Your task to perform on an android device: toggle translation in the chrome app Image 0: 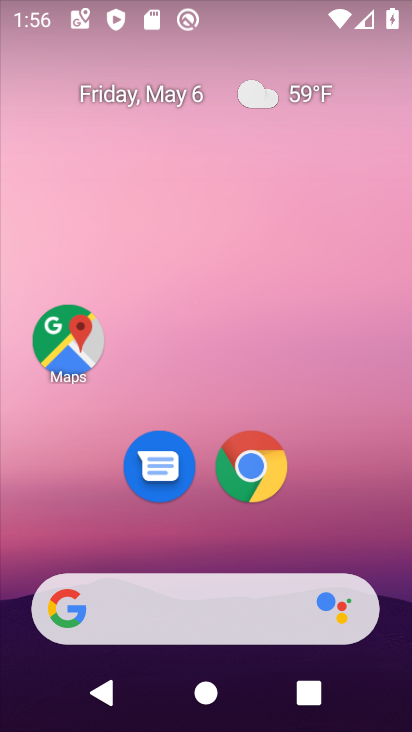
Step 0: drag from (200, 539) to (236, 45)
Your task to perform on an android device: toggle translation in the chrome app Image 1: 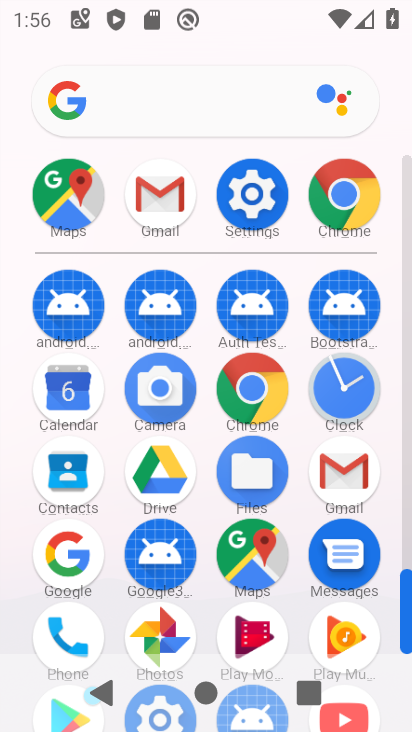
Step 1: click (248, 380)
Your task to perform on an android device: toggle translation in the chrome app Image 2: 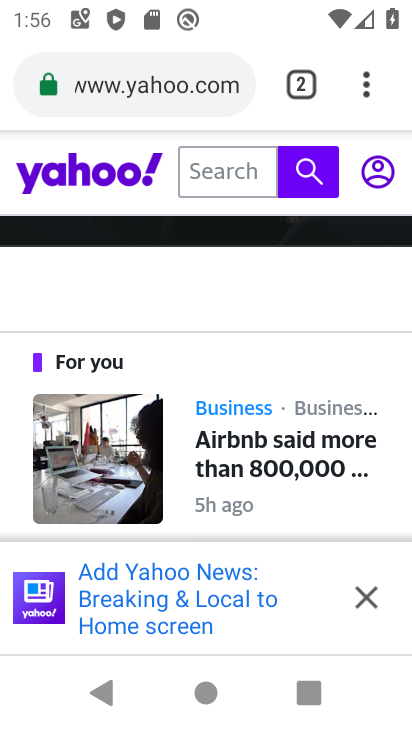
Step 2: click (366, 86)
Your task to perform on an android device: toggle translation in the chrome app Image 3: 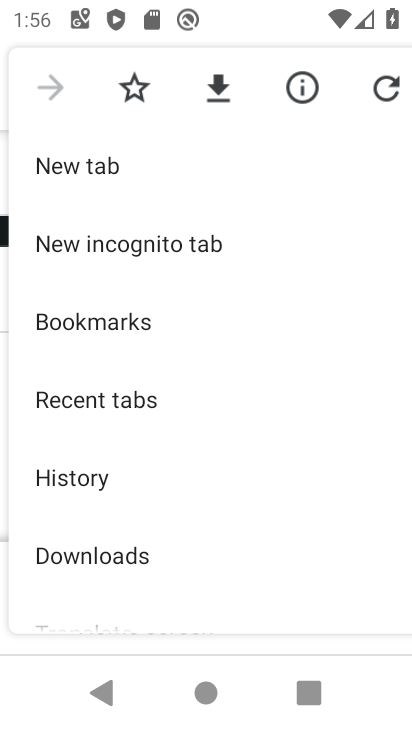
Step 3: drag from (181, 596) to (204, 123)
Your task to perform on an android device: toggle translation in the chrome app Image 4: 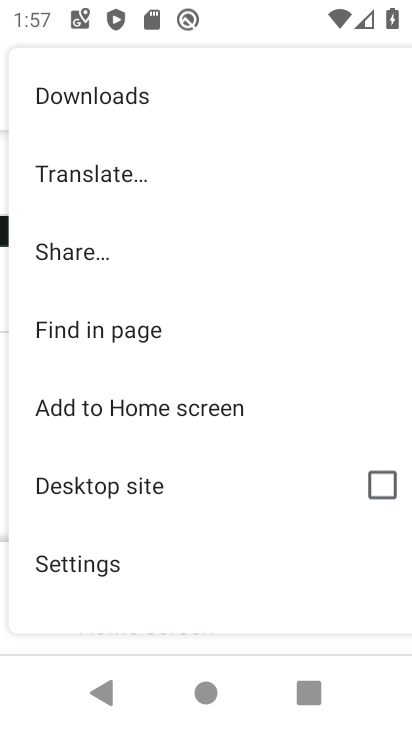
Step 4: click (137, 563)
Your task to perform on an android device: toggle translation in the chrome app Image 5: 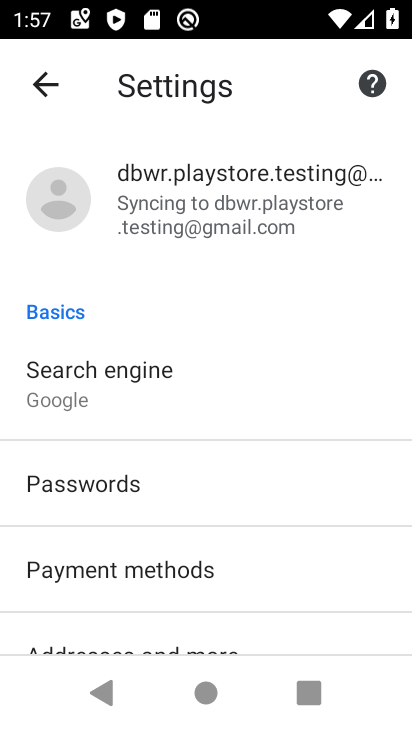
Step 5: drag from (235, 596) to (240, 161)
Your task to perform on an android device: toggle translation in the chrome app Image 6: 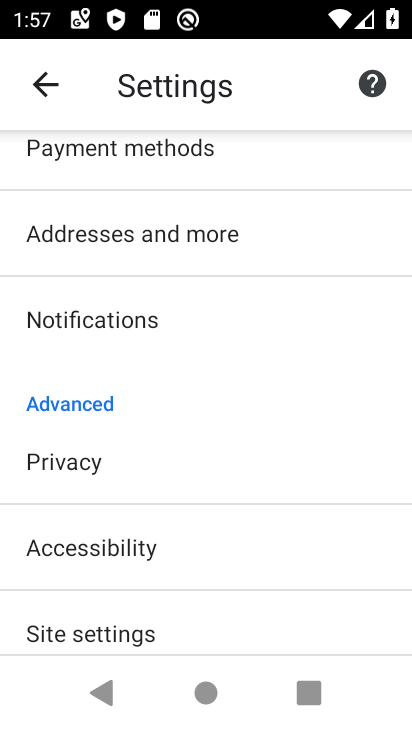
Step 6: drag from (198, 598) to (217, 242)
Your task to perform on an android device: toggle translation in the chrome app Image 7: 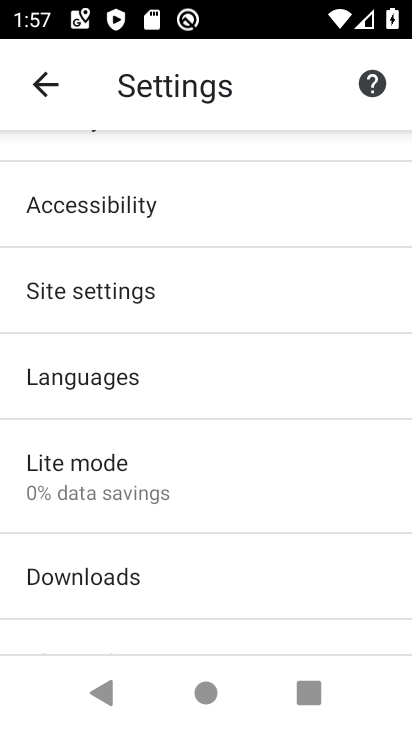
Step 7: click (164, 385)
Your task to perform on an android device: toggle translation in the chrome app Image 8: 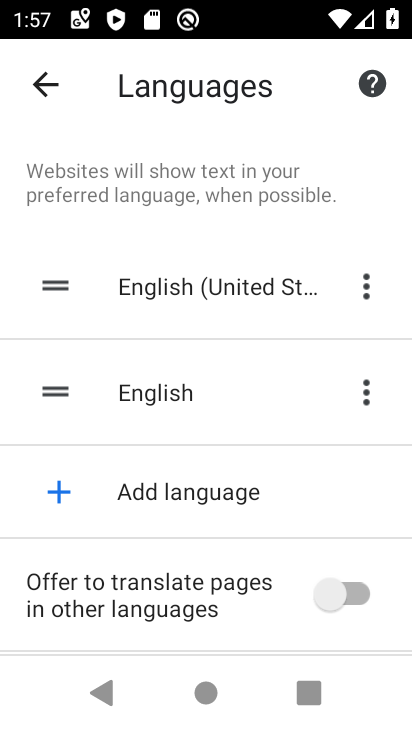
Step 8: click (351, 587)
Your task to perform on an android device: toggle translation in the chrome app Image 9: 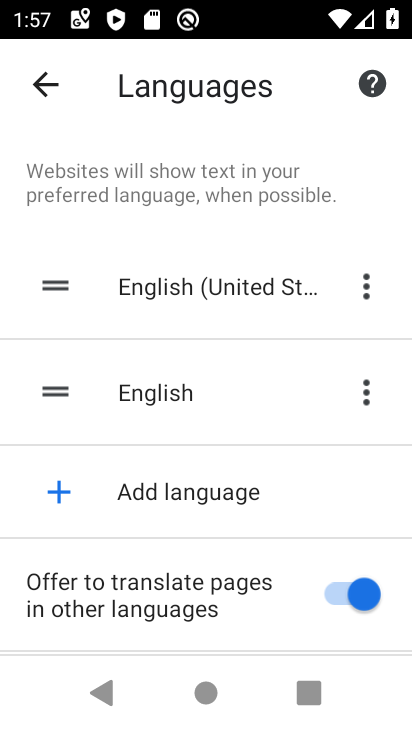
Step 9: task complete